Your task to perform on an android device: Open the phone app and click the voicemail tab. Image 0: 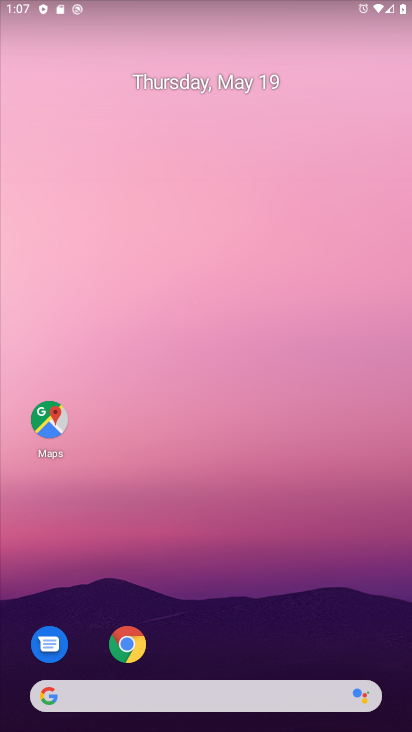
Step 0: drag from (384, 729) to (142, 63)
Your task to perform on an android device: Open the phone app and click the voicemail tab. Image 1: 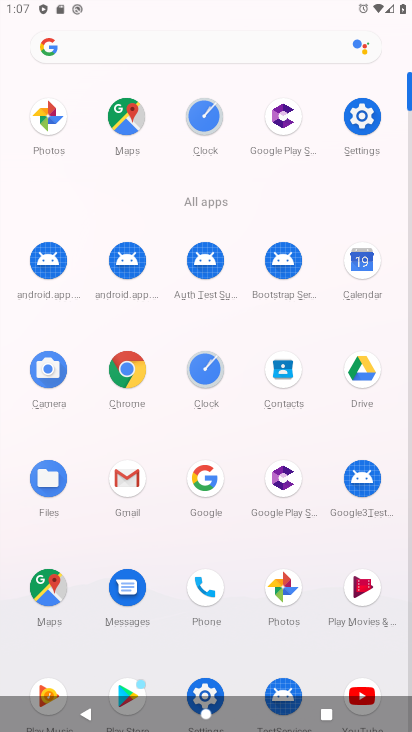
Step 1: click (206, 591)
Your task to perform on an android device: Open the phone app and click the voicemail tab. Image 2: 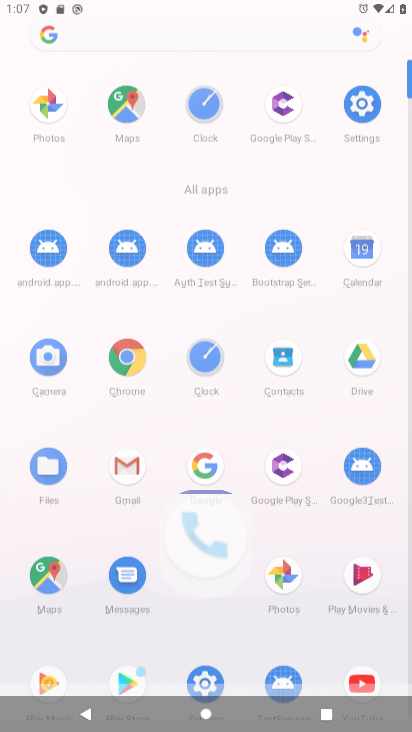
Step 2: click (207, 591)
Your task to perform on an android device: Open the phone app and click the voicemail tab. Image 3: 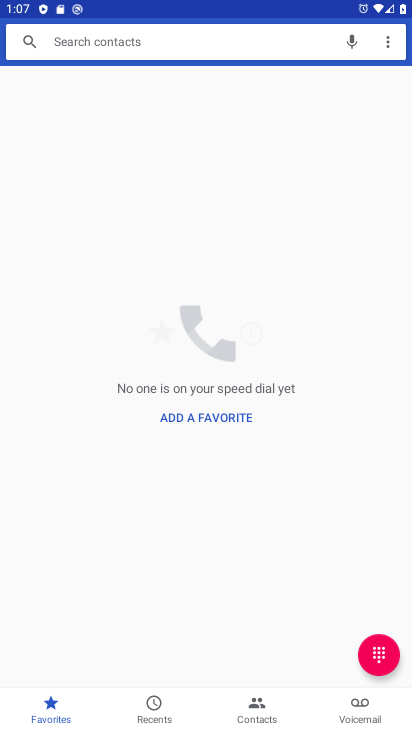
Step 3: click (345, 710)
Your task to perform on an android device: Open the phone app and click the voicemail tab. Image 4: 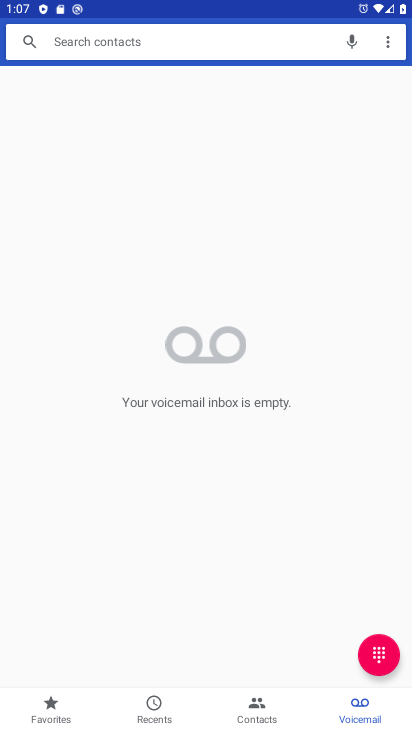
Step 4: click (345, 710)
Your task to perform on an android device: Open the phone app and click the voicemail tab. Image 5: 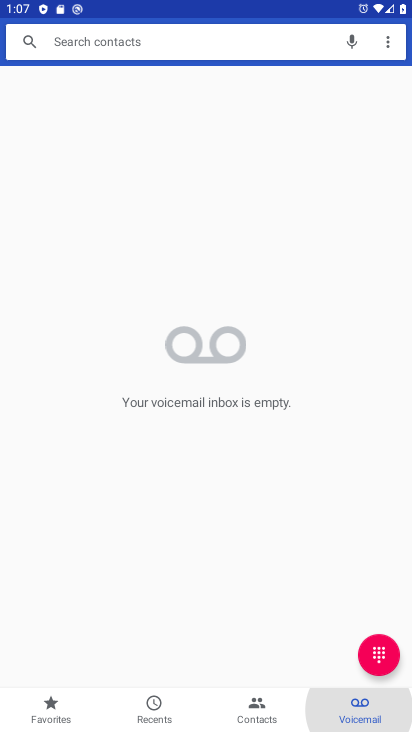
Step 5: click (347, 710)
Your task to perform on an android device: Open the phone app and click the voicemail tab. Image 6: 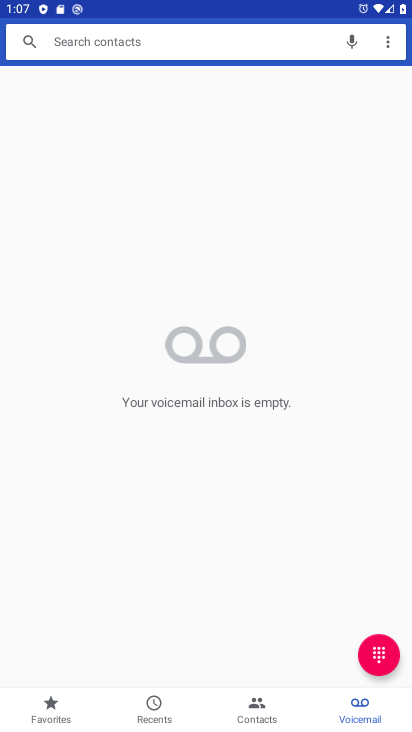
Step 6: task complete